Your task to perform on an android device: Open ESPN.com Image 0: 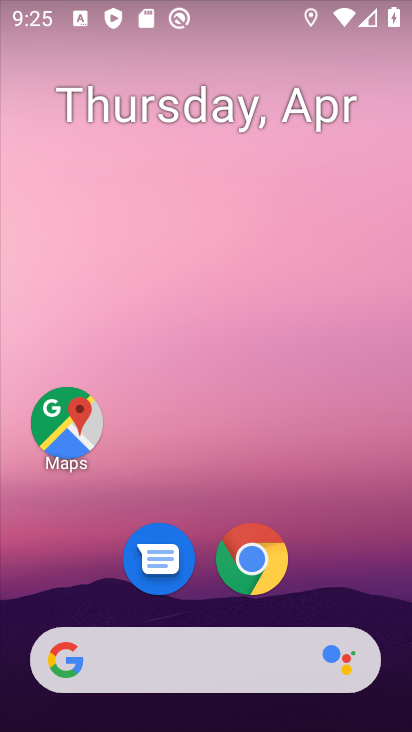
Step 0: click (244, 570)
Your task to perform on an android device: Open ESPN.com Image 1: 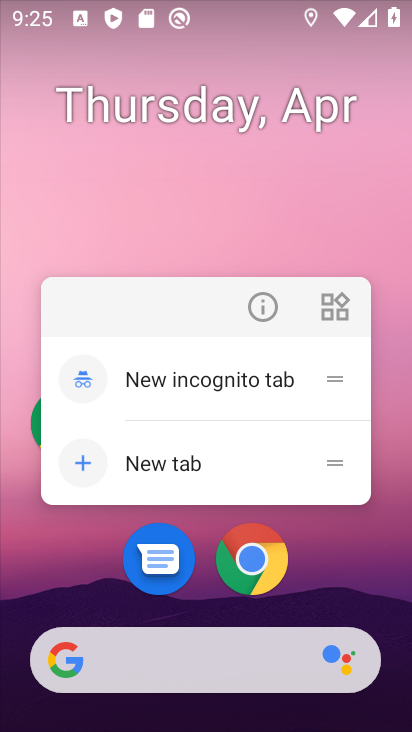
Step 1: click (231, 545)
Your task to perform on an android device: Open ESPN.com Image 2: 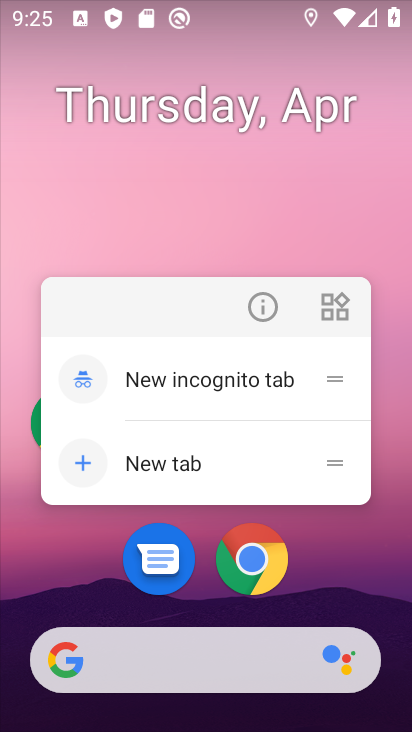
Step 2: click (231, 545)
Your task to perform on an android device: Open ESPN.com Image 3: 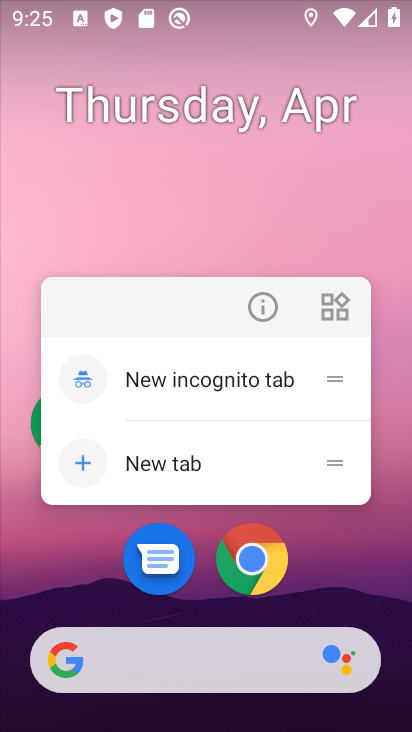
Step 3: click (231, 545)
Your task to perform on an android device: Open ESPN.com Image 4: 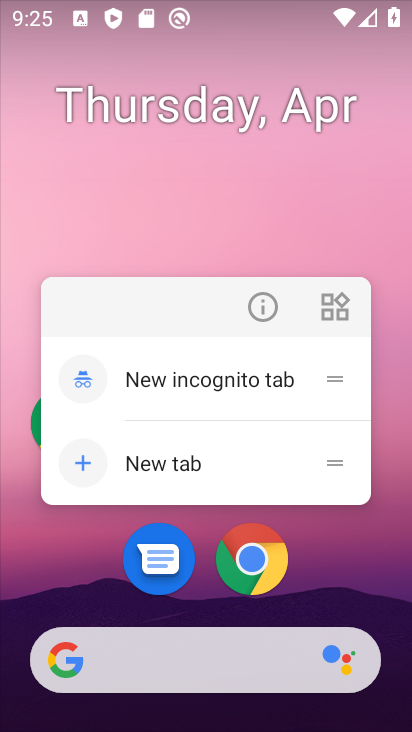
Step 4: click (231, 545)
Your task to perform on an android device: Open ESPN.com Image 5: 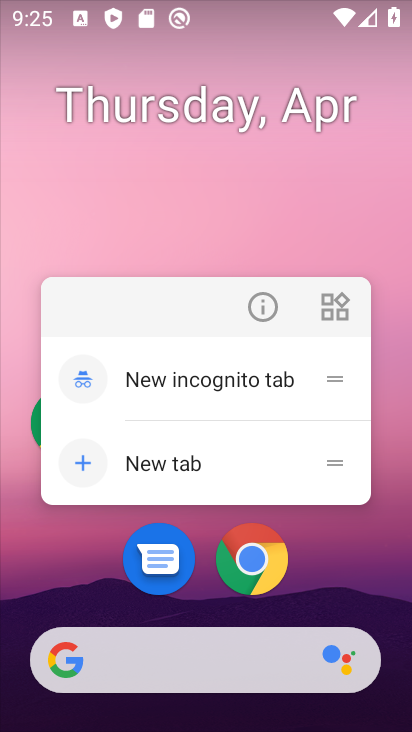
Step 5: click (231, 545)
Your task to perform on an android device: Open ESPN.com Image 6: 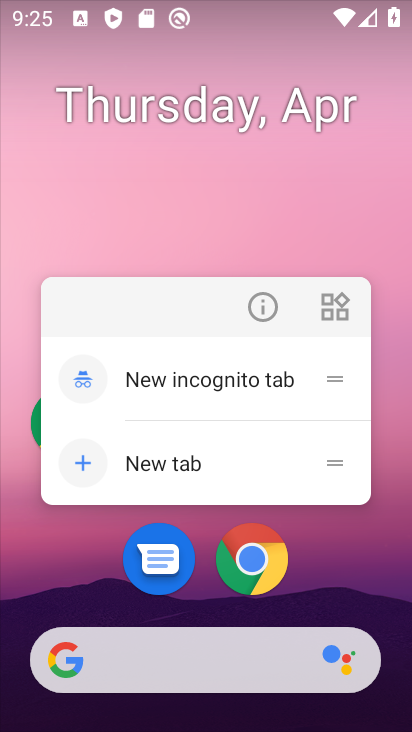
Step 6: click (231, 545)
Your task to perform on an android device: Open ESPN.com Image 7: 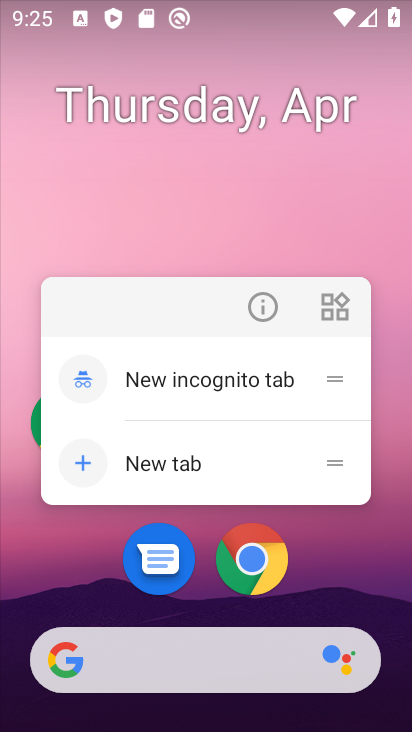
Step 7: click (231, 545)
Your task to perform on an android device: Open ESPN.com Image 8: 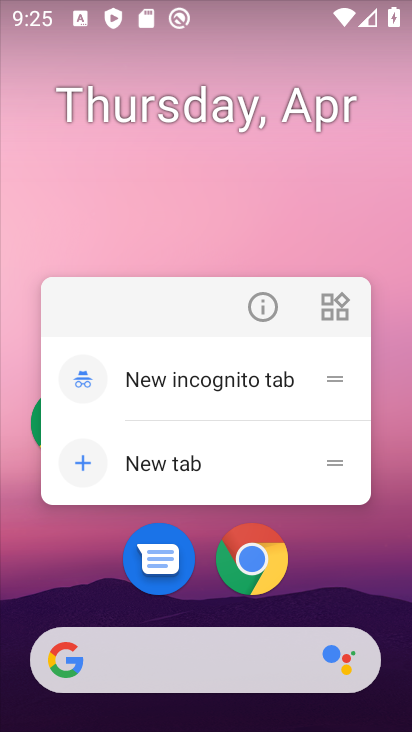
Step 8: click (231, 545)
Your task to perform on an android device: Open ESPN.com Image 9: 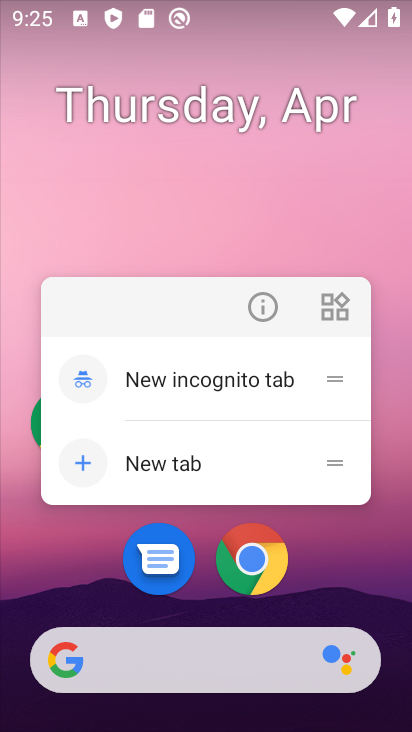
Step 9: click (231, 545)
Your task to perform on an android device: Open ESPN.com Image 10: 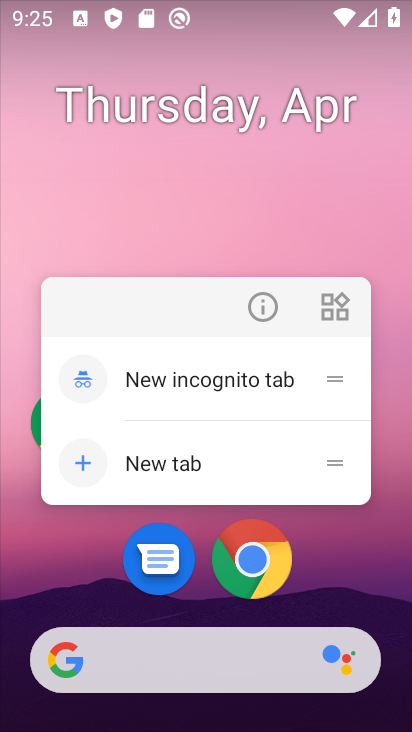
Step 10: click (231, 545)
Your task to perform on an android device: Open ESPN.com Image 11: 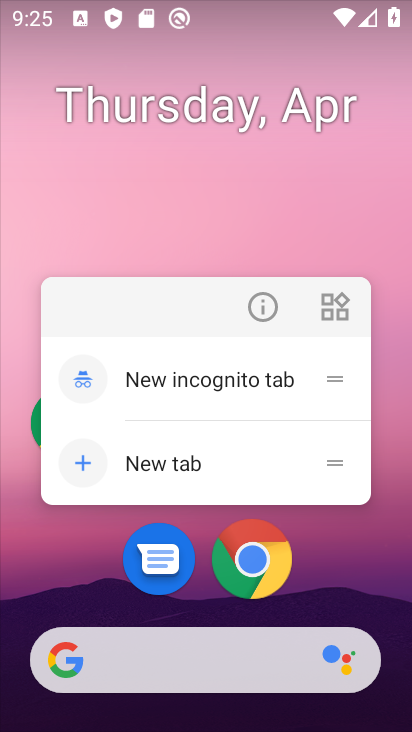
Step 11: click (231, 545)
Your task to perform on an android device: Open ESPN.com Image 12: 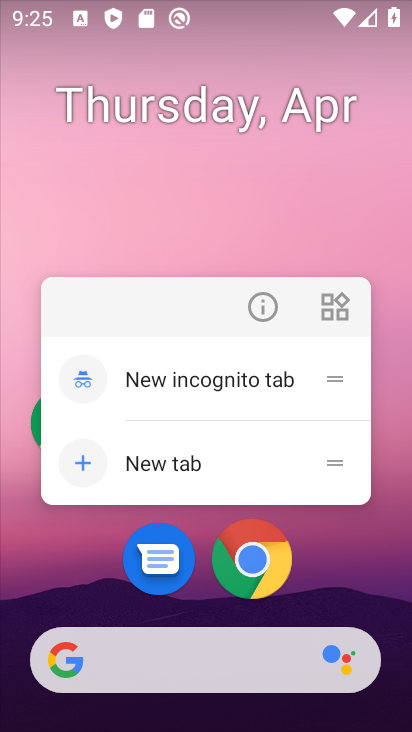
Step 12: click (231, 545)
Your task to perform on an android device: Open ESPN.com Image 13: 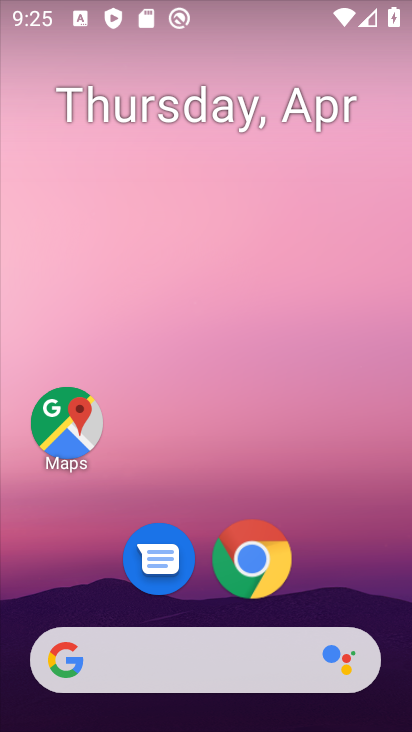
Step 13: click (231, 545)
Your task to perform on an android device: Open ESPN.com Image 14: 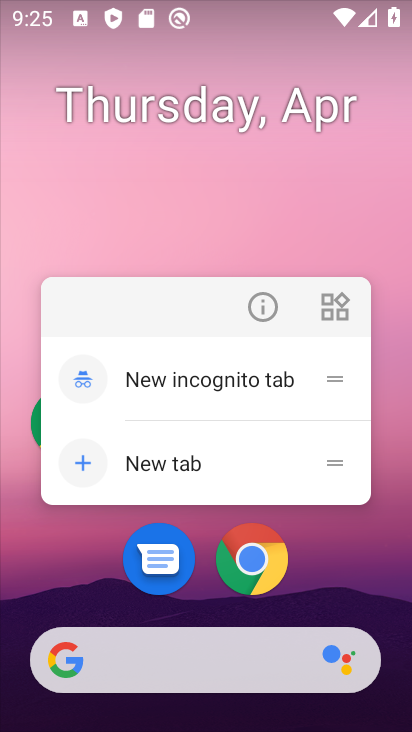
Step 14: click (231, 545)
Your task to perform on an android device: Open ESPN.com Image 15: 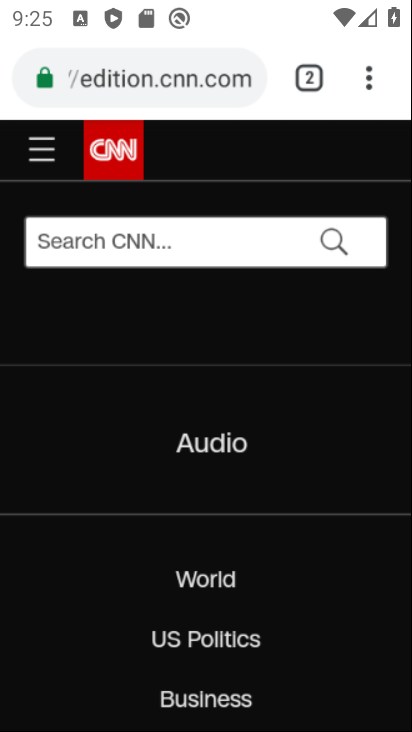
Step 15: click (231, 545)
Your task to perform on an android device: Open ESPN.com Image 16: 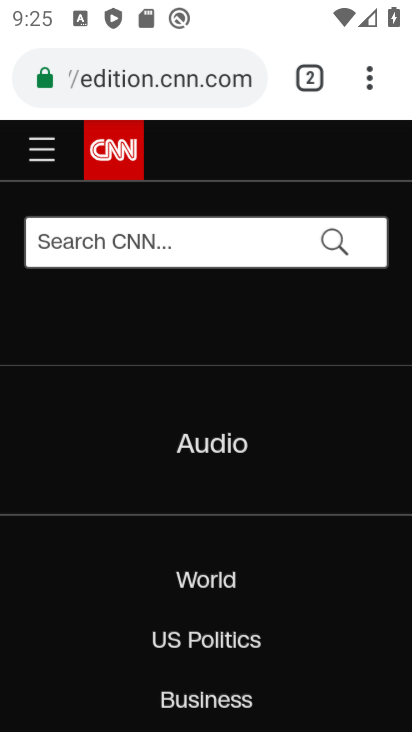
Step 16: click (231, 545)
Your task to perform on an android device: Open ESPN.com Image 17: 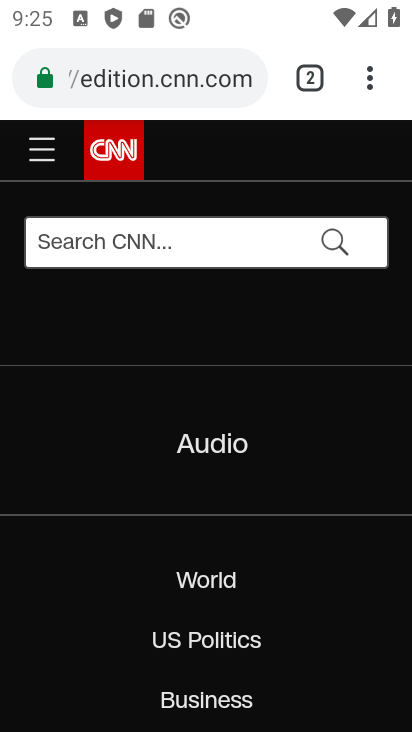
Step 17: click (225, 75)
Your task to perform on an android device: Open ESPN.com Image 18: 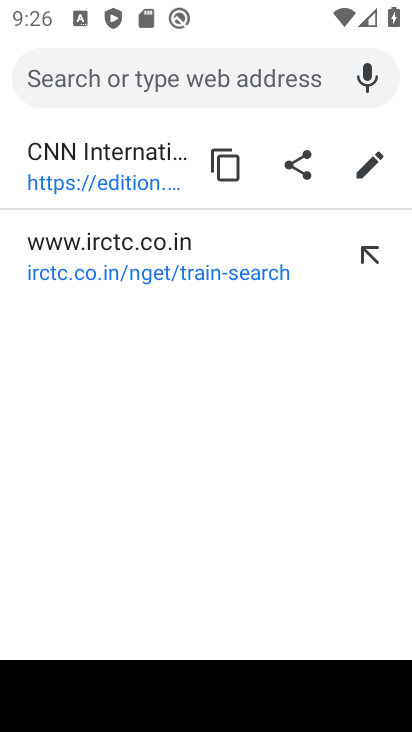
Step 18: type "espn.com"
Your task to perform on an android device: Open ESPN.com Image 19: 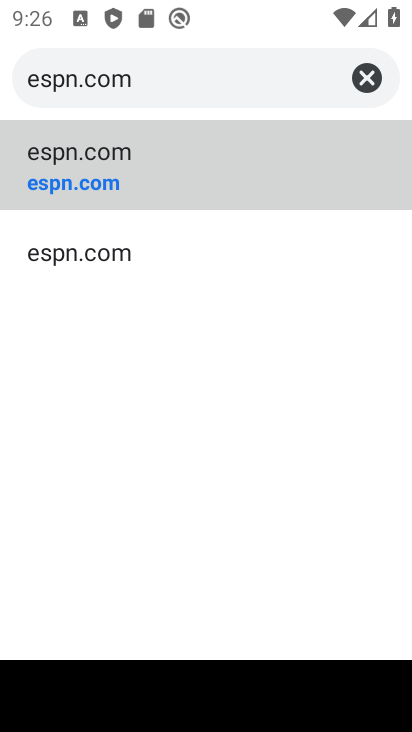
Step 19: click (299, 157)
Your task to perform on an android device: Open ESPN.com Image 20: 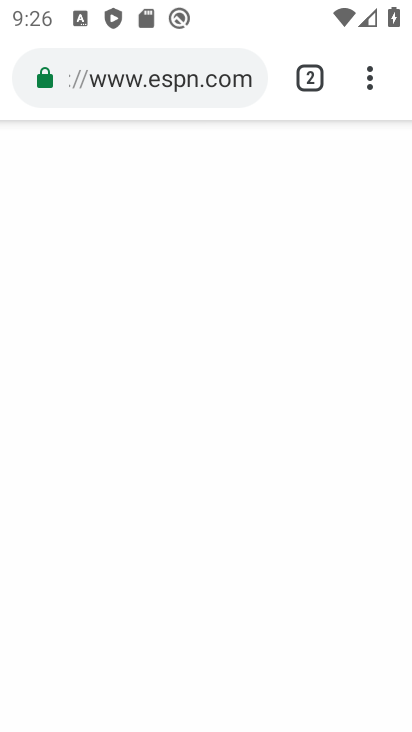
Step 20: task complete